Your task to perform on an android device: Open eBay Image 0: 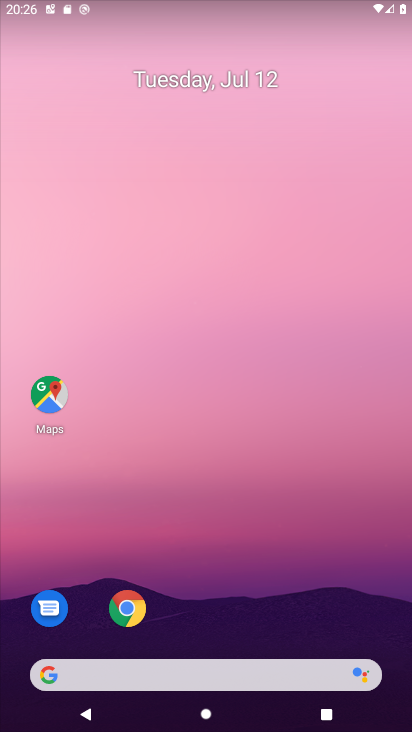
Step 0: click (125, 612)
Your task to perform on an android device: Open eBay Image 1: 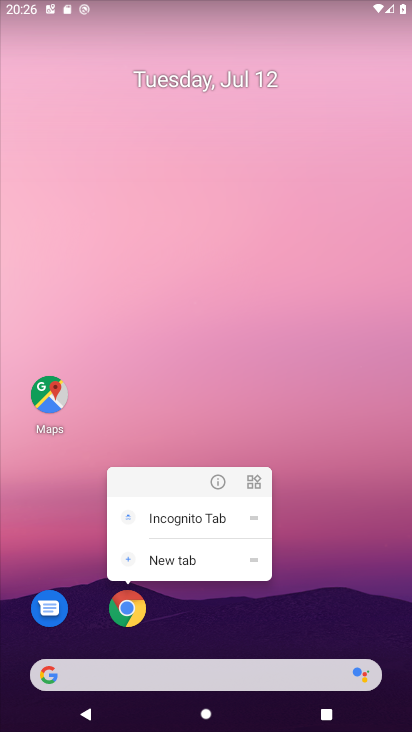
Step 1: click (123, 613)
Your task to perform on an android device: Open eBay Image 2: 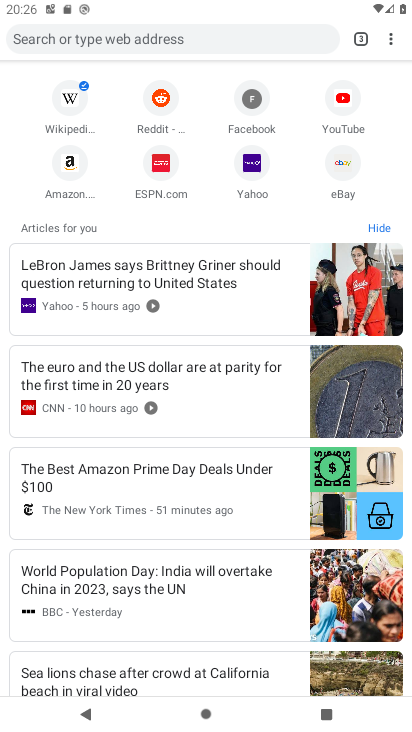
Step 2: click (341, 162)
Your task to perform on an android device: Open eBay Image 3: 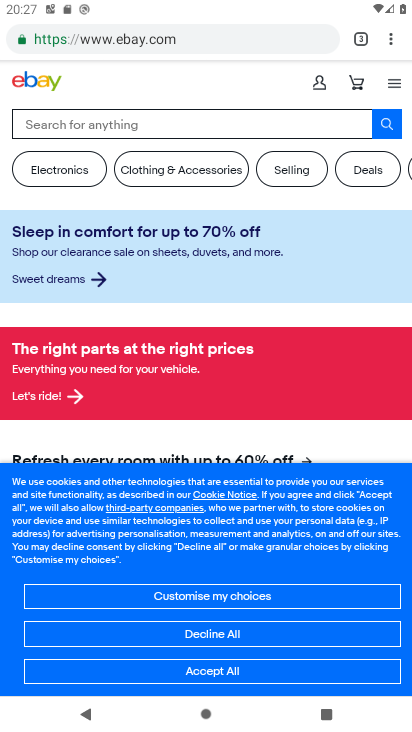
Step 3: click (196, 670)
Your task to perform on an android device: Open eBay Image 4: 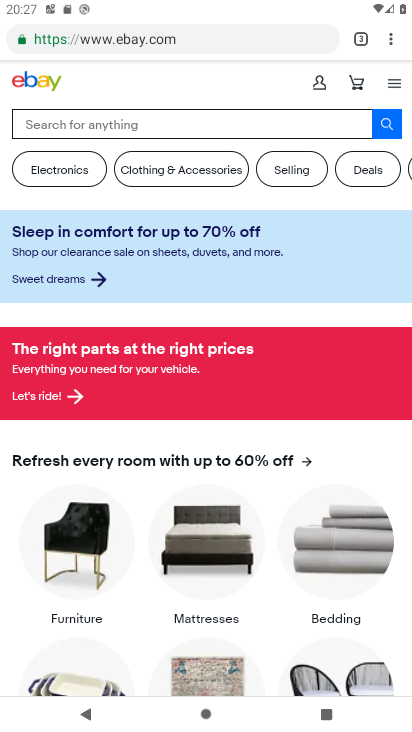
Step 4: task complete